Your task to perform on an android device: turn off wifi Image 0: 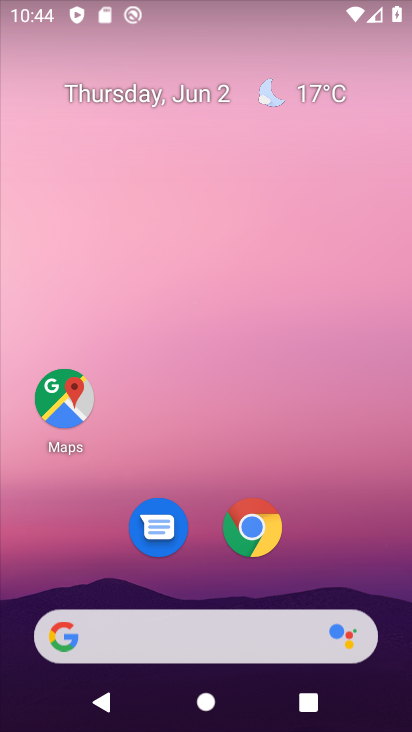
Step 0: press home button
Your task to perform on an android device: turn off wifi Image 1: 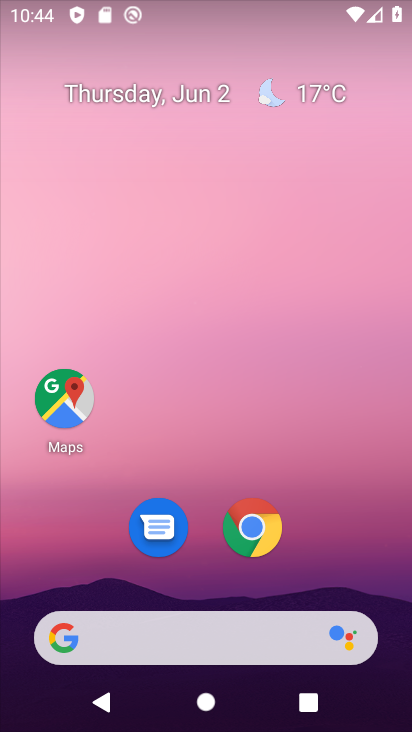
Step 1: drag from (187, 14) to (208, 479)
Your task to perform on an android device: turn off wifi Image 2: 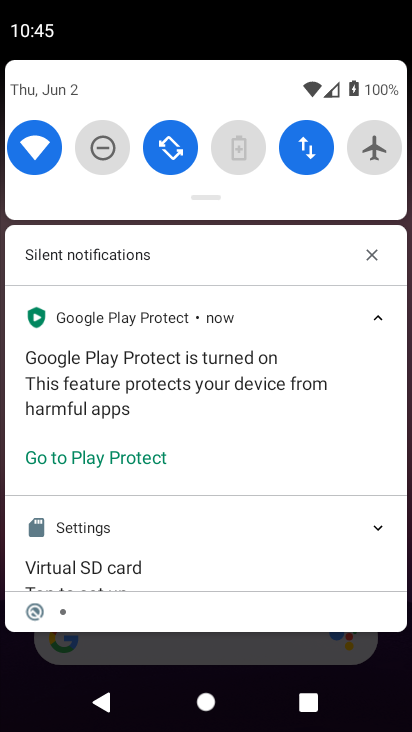
Step 2: click (37, 150)
Your task to perform on an android device: turn off wifi Image 3: 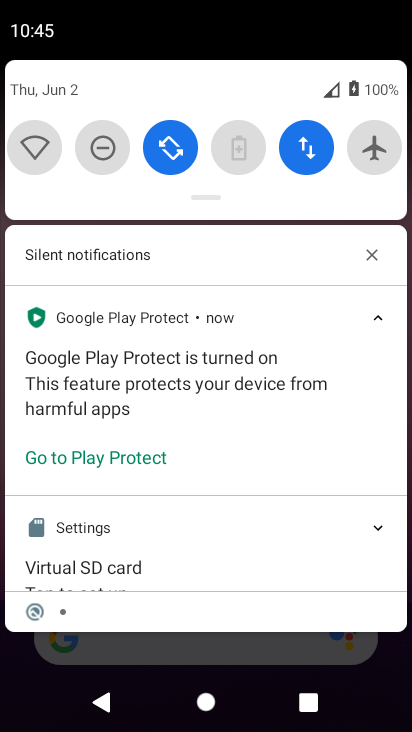
Step 3: task complete